Your task to perform on an android device: Open display settings Image 0: 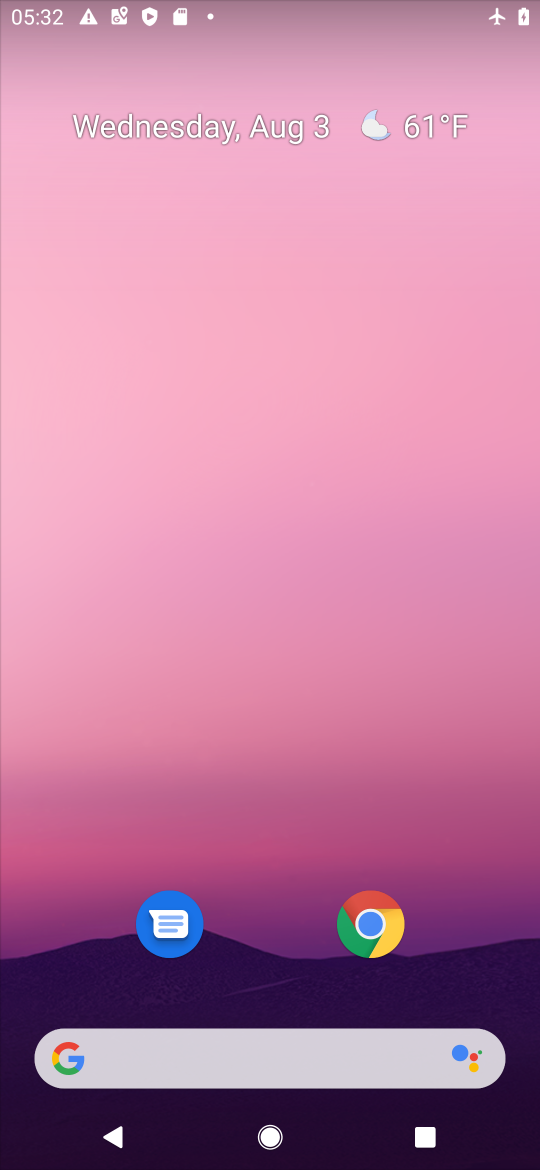
Step 0: drag from (268, 960) to (254, 340)
Your task to perform on an android device: Open display settings Image 1: 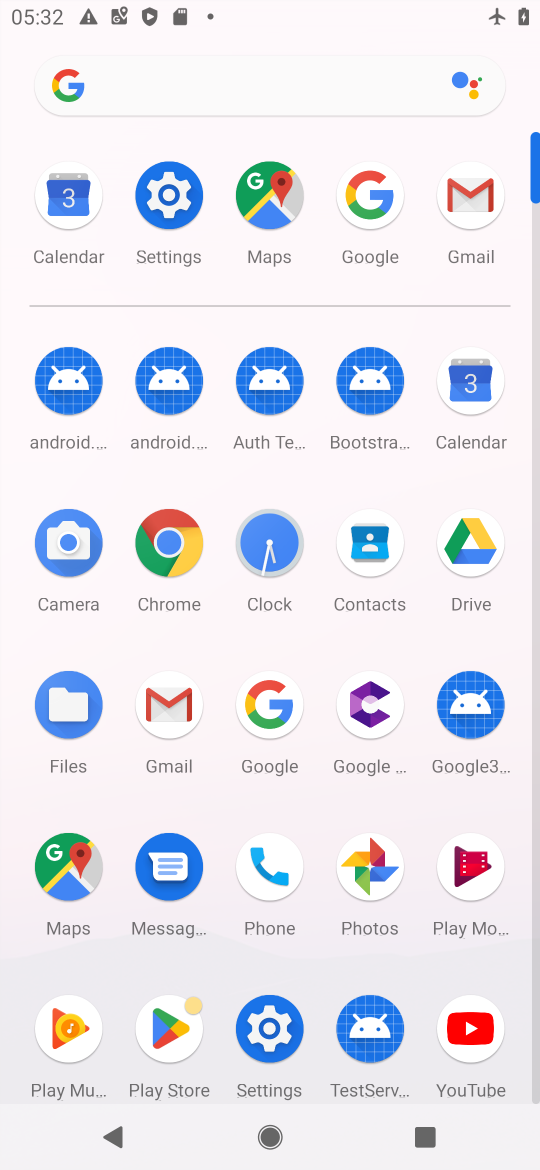
Step 1: click (177, 209)
Your task to perform on an android device: Open display settings Image 2: 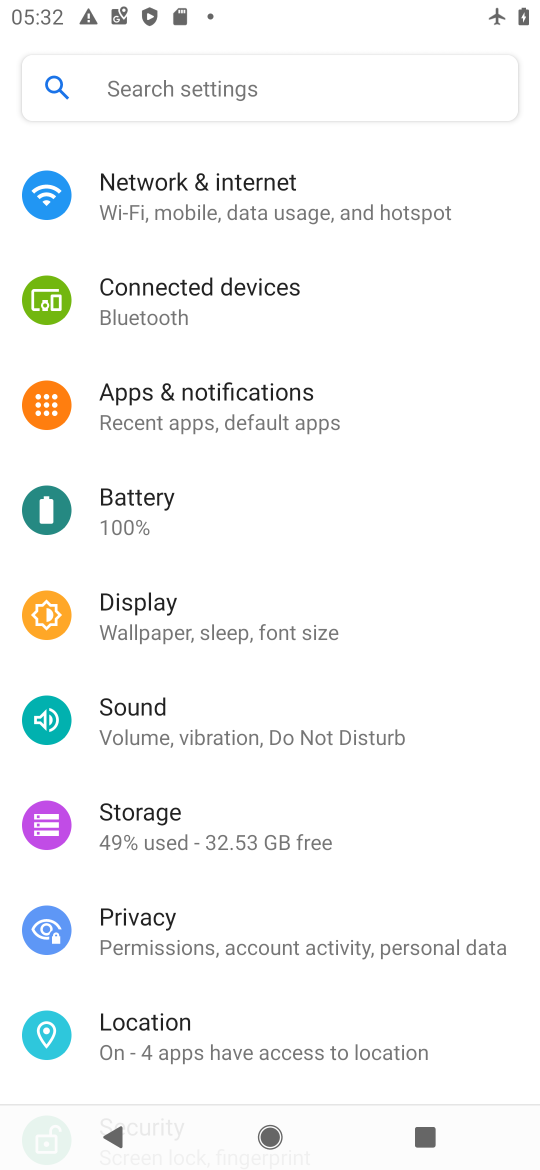
Step 2: click (226, 622)
Your task to perform on an android device: Open display settings Image 3: 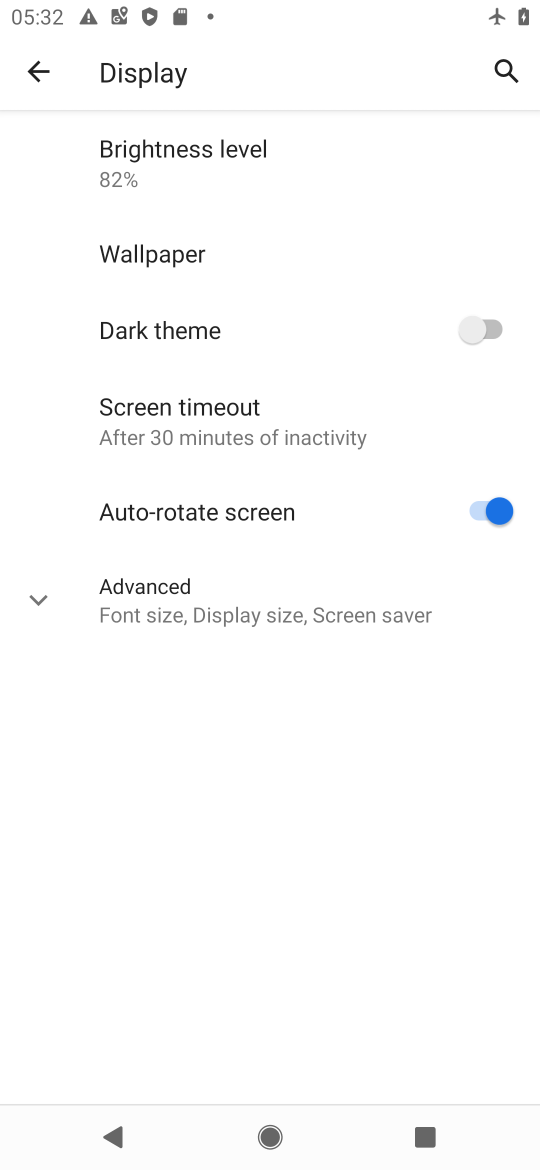
Step 3: task complete